Your task to perform on an android device: see tabs open on other devices in the chrome app Image 0: 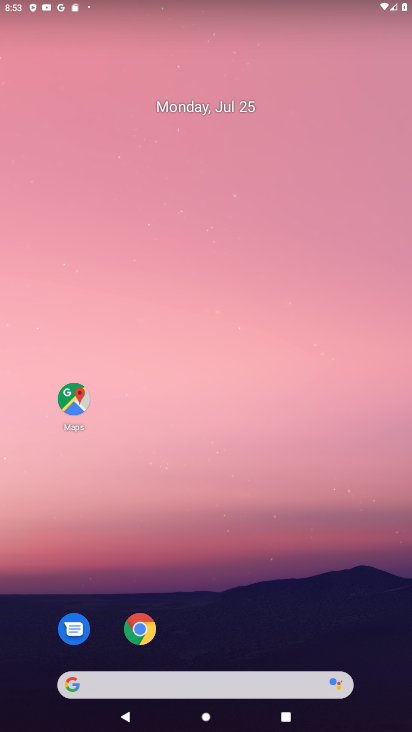
Step 0: click (142, 624)
Your task to perform on an android device: see tabs open on other devices in the chrome app Image 1: 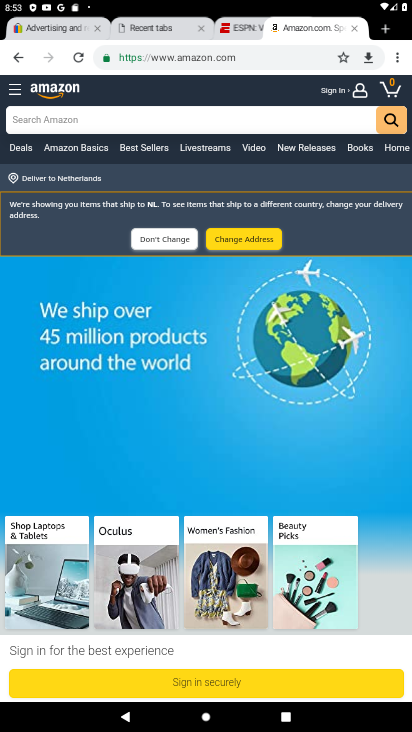
Step 1: click (403, 60)
Your task to perform on an android device: see tabs open on other devices in the chrome app Image 2: 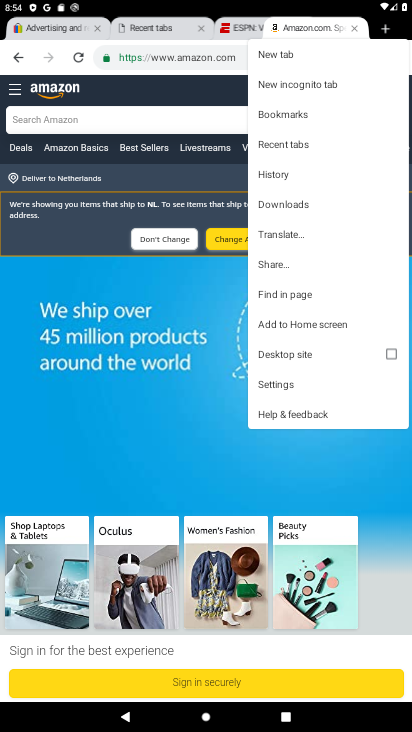
Step 2: click (316, 141)
Your task to perform on an android device: see tabs open on other devices in the chrome app Image 3: 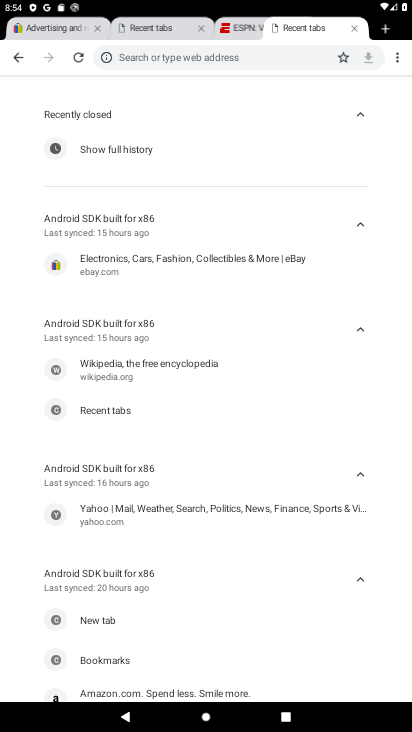
Step 3: task complete